Your task to perform on an android device: turn off priority inbox in the gmail app Image 0: 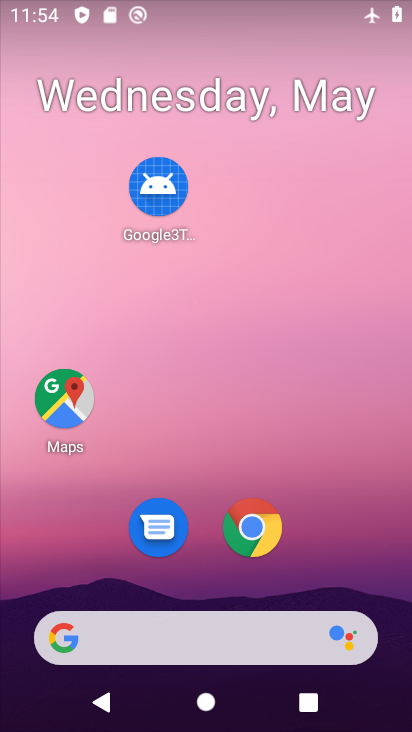
Step 0: drag from (203, 578) to (245, 69)
Your task to perform on an android device: turn off priority inbox in the gmail app Image 1: 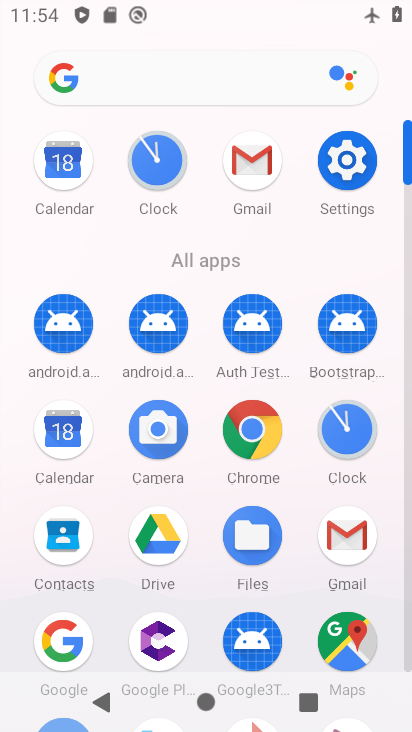
Step 1: click (250, 155)
Your task to perform on an android device: turn off priority inbox in the gmail app Image 2: 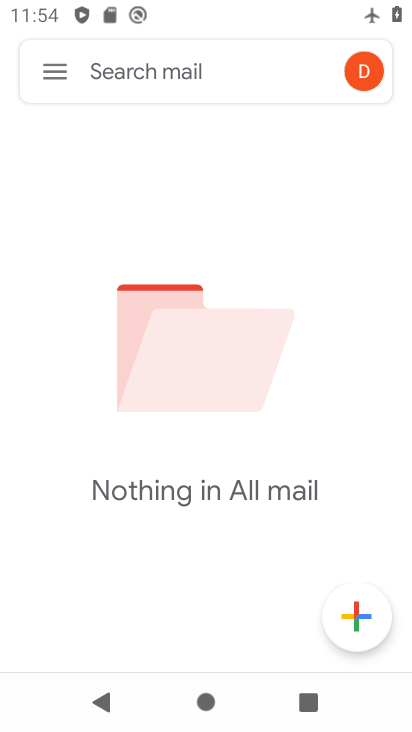
Step 2: click (56, 67)
Your task to perform on an android device: turn off priority inbox in the gmail app Image 3: 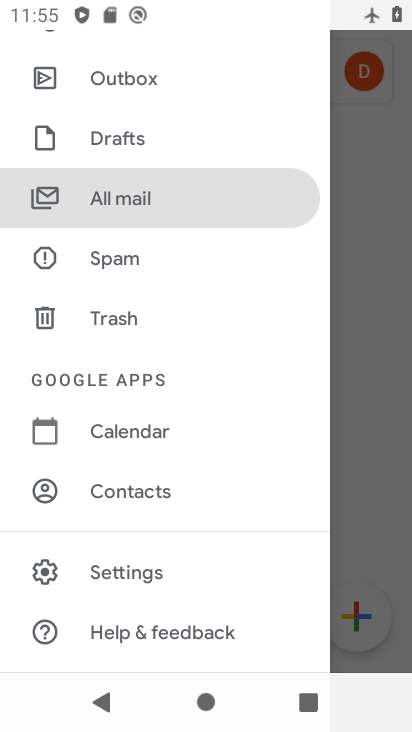
Step 3: click (73, 565)
Your task to perform on an android device: turn off priority inbox in the gmail app Image 4: 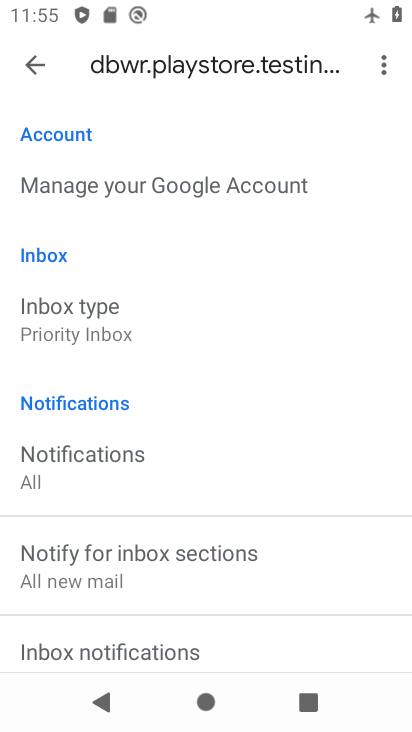
Step 4: click (156, 315)
Your task to perform on an android device: turn off priority inbox in the gmail app Image 5: 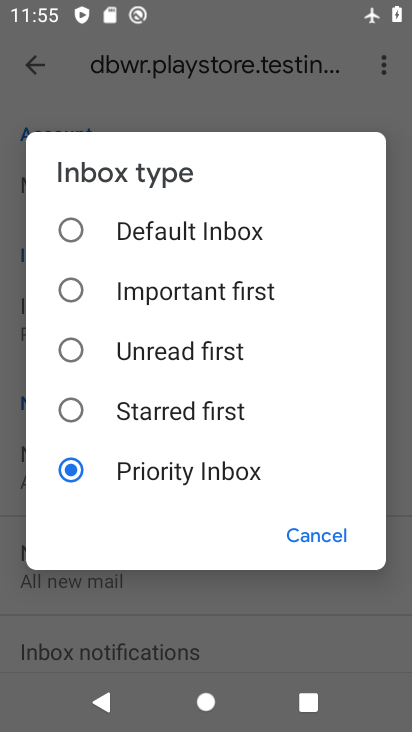
Step 5: click (71, 226)
Your task to perform on an android device: turn off priority inbox in the gmail app Image 6: 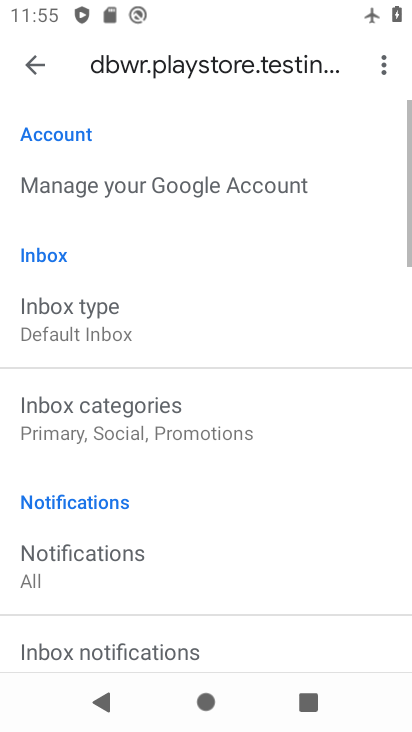
Step 6: task complete